Your task to perform on an android device: Go to Wikipedia Image 0: 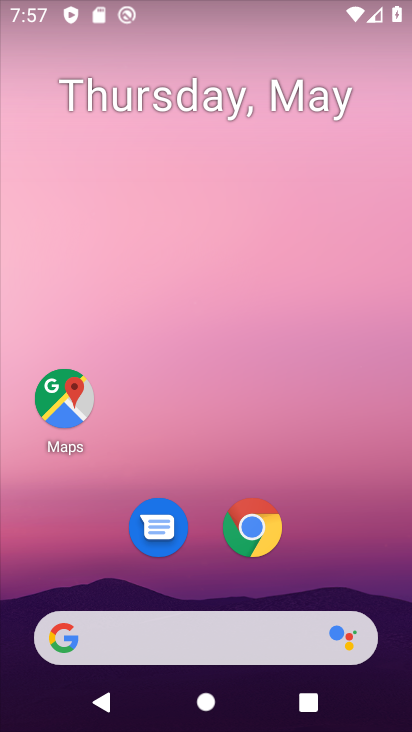
Step 0: drag from (168, 85) to (136, 0)
Your task to perform on an android device: Go to Wikipedia Image 1: 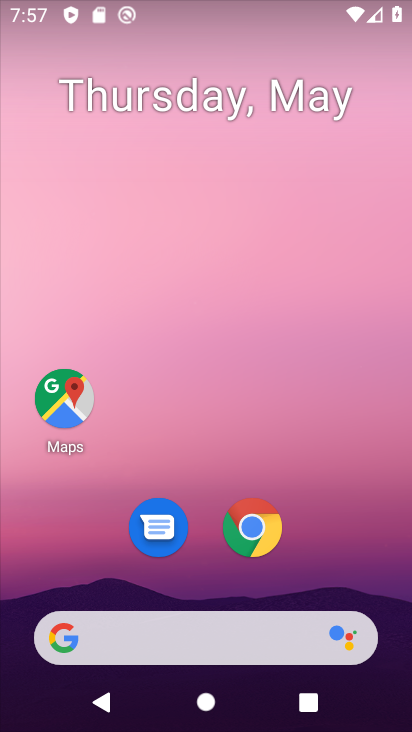
Step 1: drag from (319, 524) to (77, 22)
Your task to perform on an android device: Go to Wikipedia Image 2: 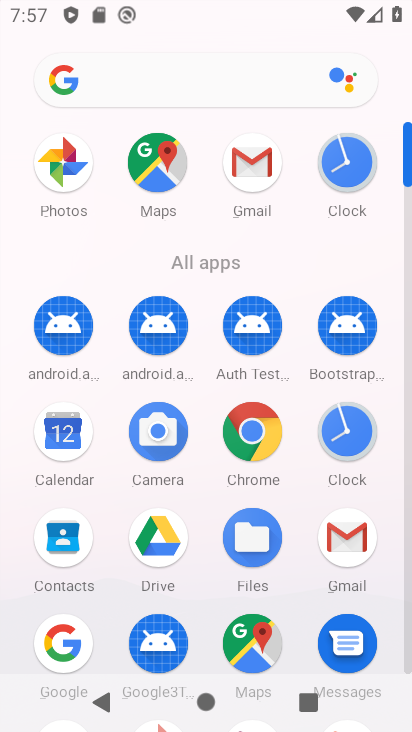
Step 2: drag from (195, 387) to (104, 16)
Your task to perform on an android device: Go to Wikipedia Image 3: 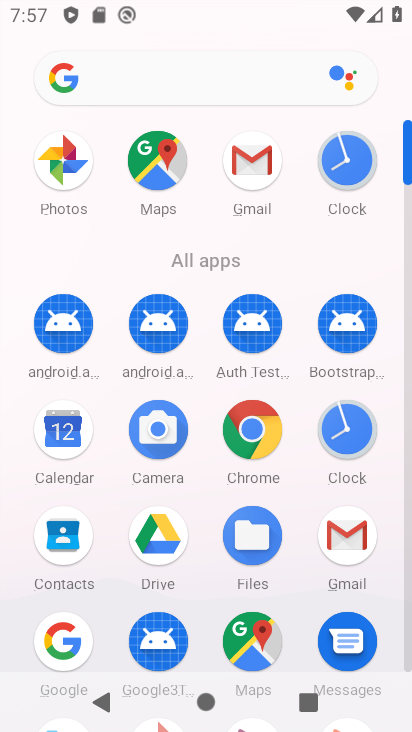
Step 3: drag from (206, 518) to (136, 99)
Your task to perform on an android device: Go to Wikipedia Image 4: 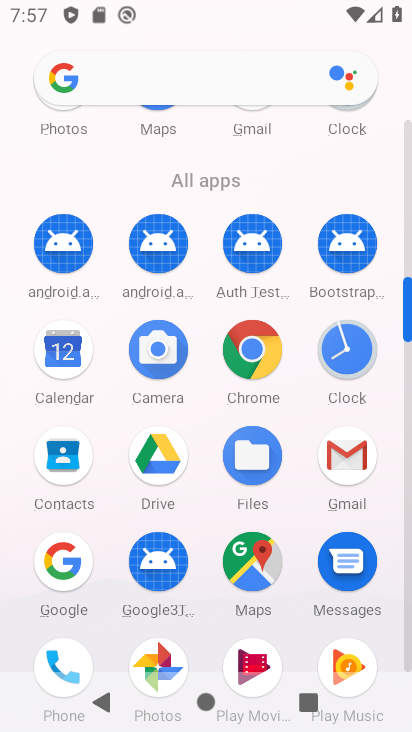
Step 4: click (177, 17)
Your task to perform on an android device: Go to Wikipedia Image 5: 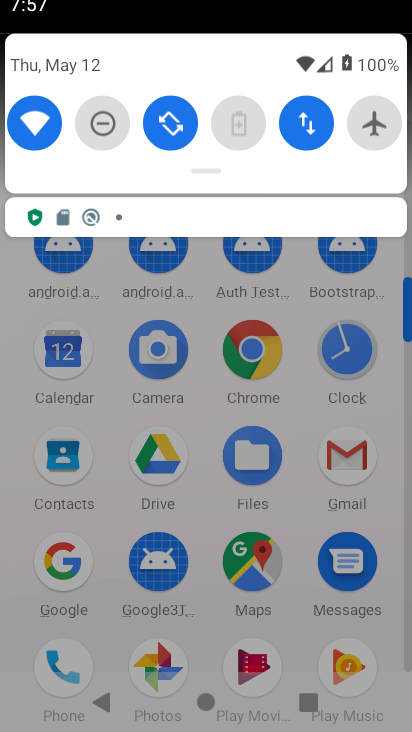
Step 5: click (256, 363)
Your task to perform on an android device: Go to Wikipedia Image 6: 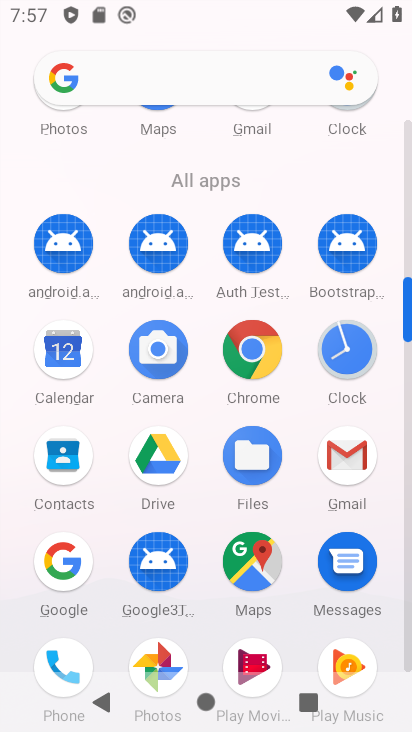
Step 6: click (256, 363)
Your task to perform on an android device: Go to Wikipedia Image 7: 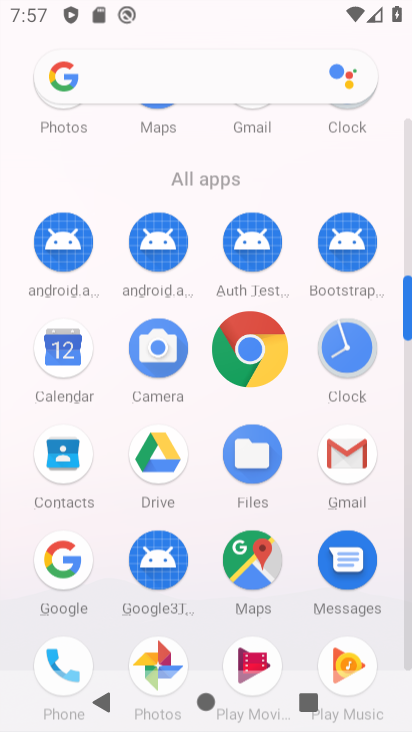
Step 7: click (249, 341)
Your task to perform on an android device: Go to Wikipedia Image 8: 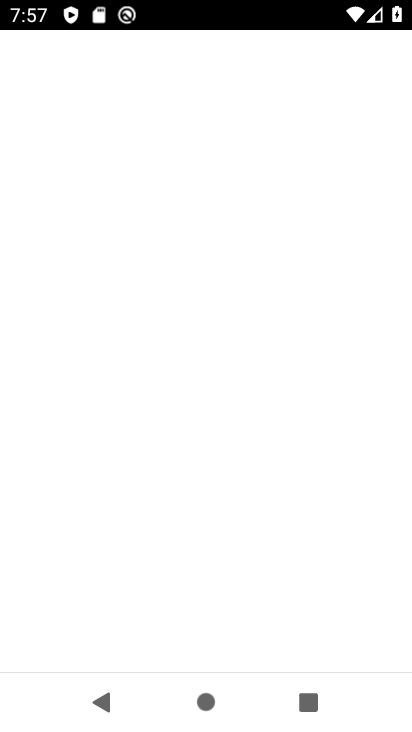
Step 8: click (254, 347)
Your task to perform on an android device: Go to Wikipedia Image 9: 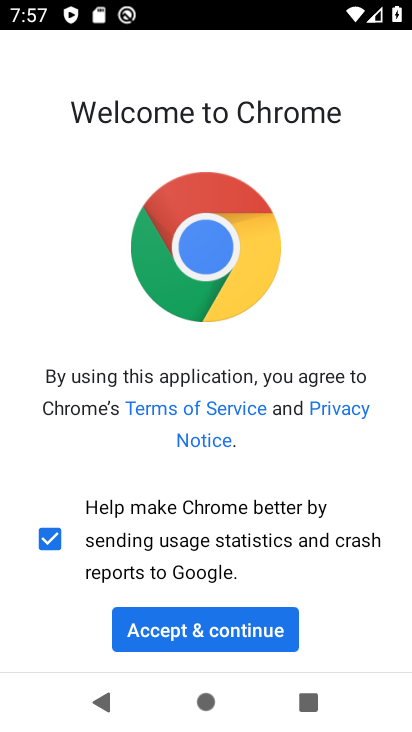
Step 9: click (223, 623)
Your task to perform on an android device: Go to Wikipedia Image 10: 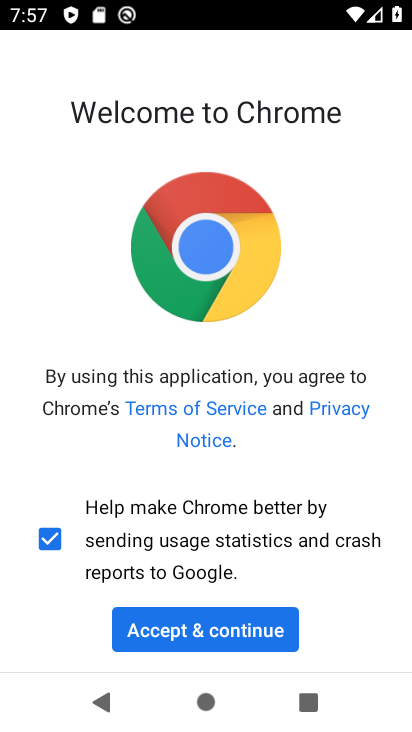
Step 10: click (224, 622)
Your task to perform on an android device: Go to Wikipedia Image 11: 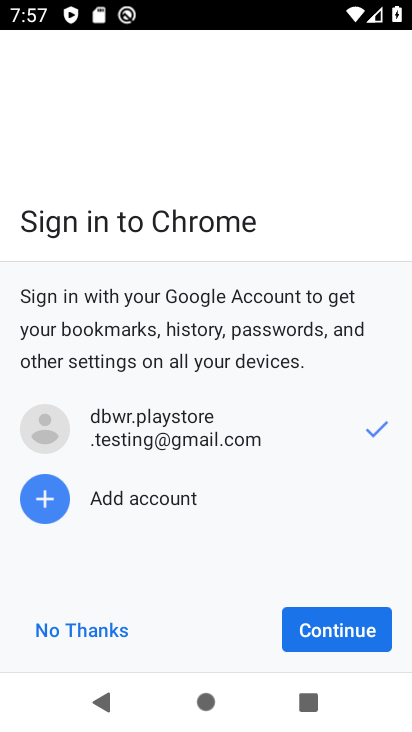
Step 11: click (224, 622)
Your task to perform on an android device: Go to Wikipedia Image 12: 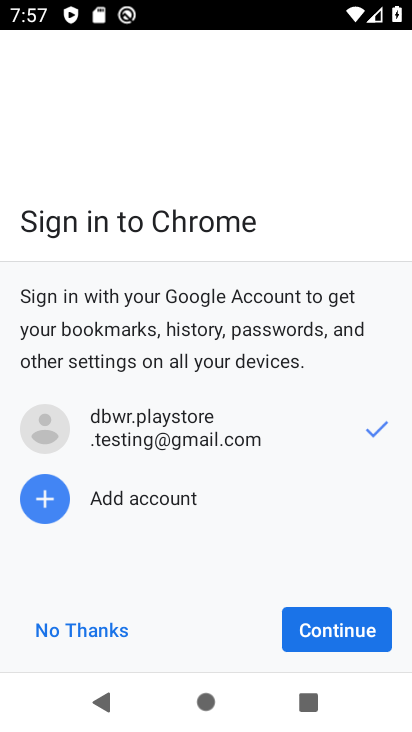
Step 12: click (224, 622)
Your task to perform on an android device: Go to Wikipedia Image 13: 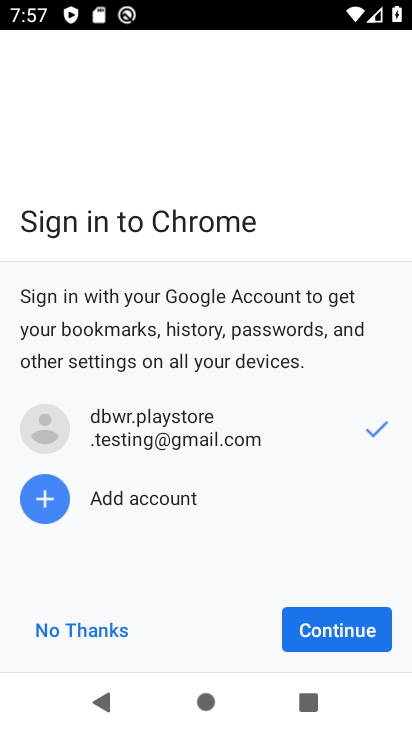
Step 13: click (336, 631)
Your task to perform on an android device: Go to Wikipedia Image 14: 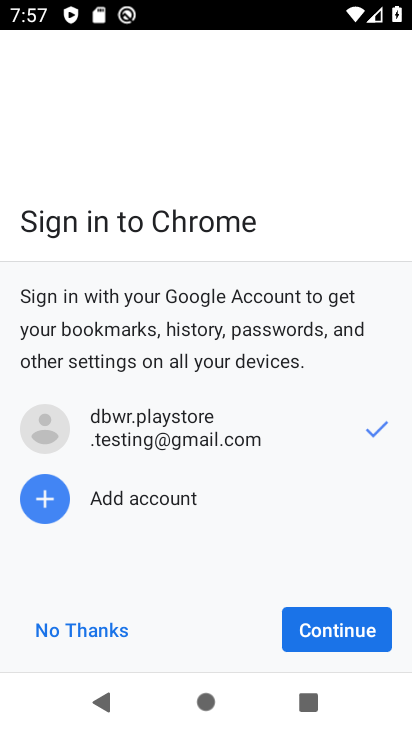
Step 14: click (336, 631)
Your task to perform on an android device: Go to Wikipedia Image 15: 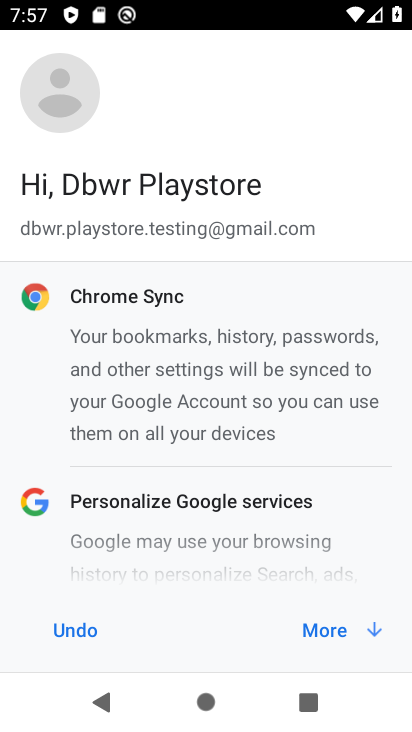
Step 15: click (336, 631)
Your task to perform on an android device: Go to Wikipedia Image 16: 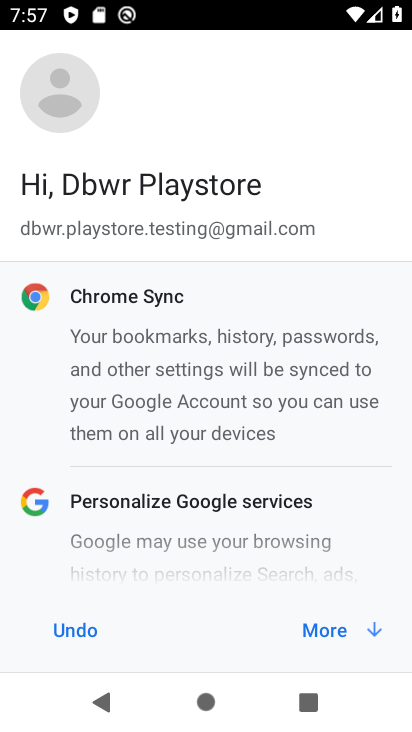
Step 16: click (336, 631)
Your task to perform on an android device: Go to Wikipedia Image 17: 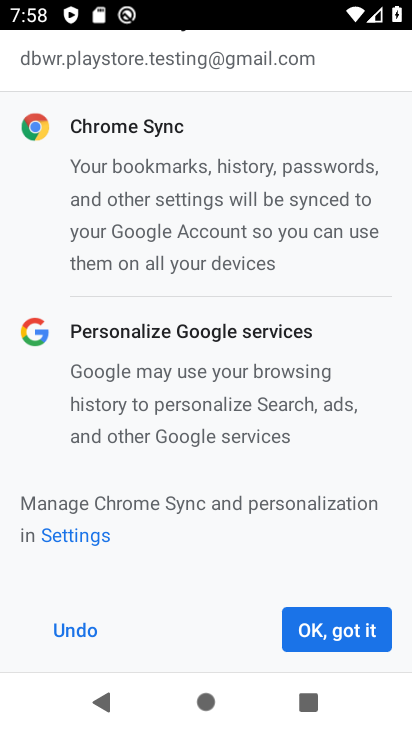
Step 17: click (336, 631)
Your task to perform on an android device: Go to Wikipedia Image 18: 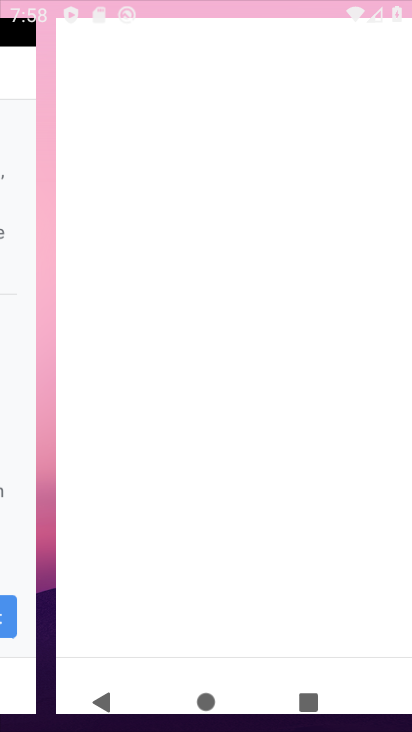
Step 18: click (339, 623)
Your task to perform on an android device: Go to Wikipedia Image 19: 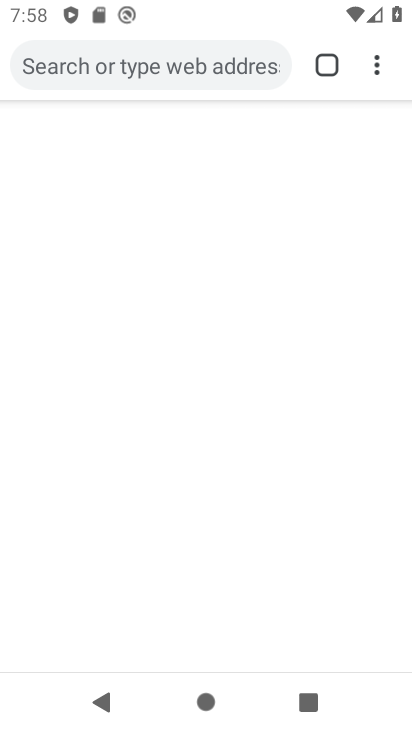
Step 19: click (342, 636)
Your task to perform on an android device: Go to Wikipedia Image 20: 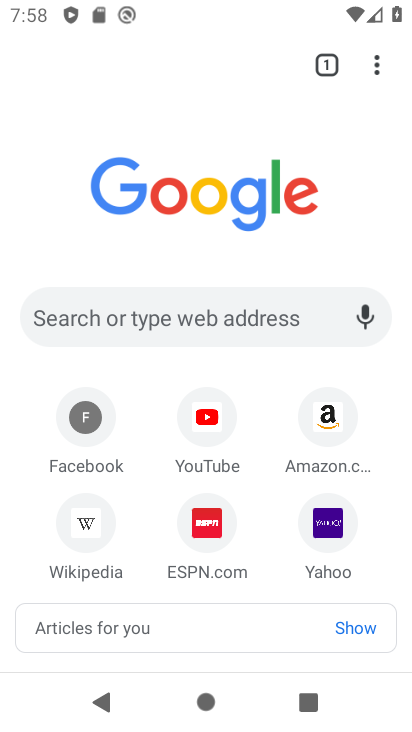
Step 20: click (92, 527)
Your task to perform on an android device: Go to Wikipedia Image 21: 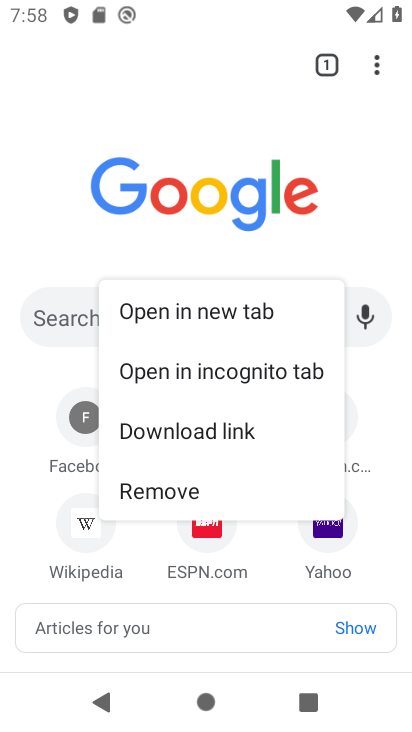
Step 21: click (86, 513)
Your task to perform on an android device: Go to Wikipedia Image 22: 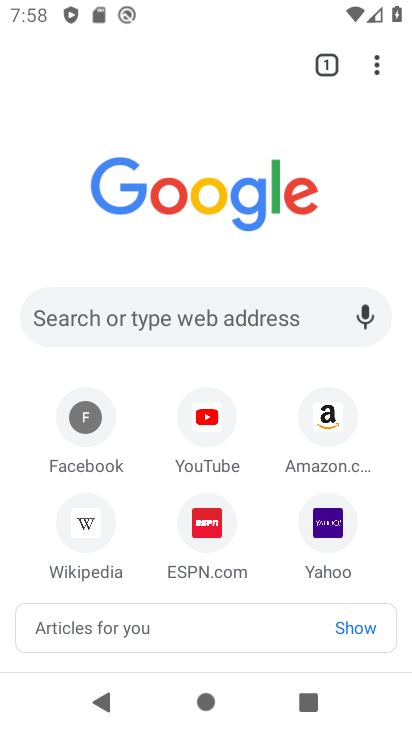
Step 22: click (82, 524)
Your task to perform on an android device: Go to Wikipedia Image 23: 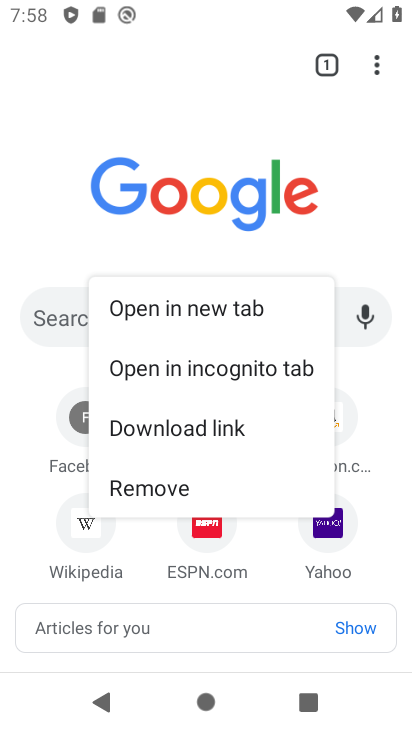
Step 23: click (82, 527)
Your task to perform on an android device: Go to Wikipedia Image 24: 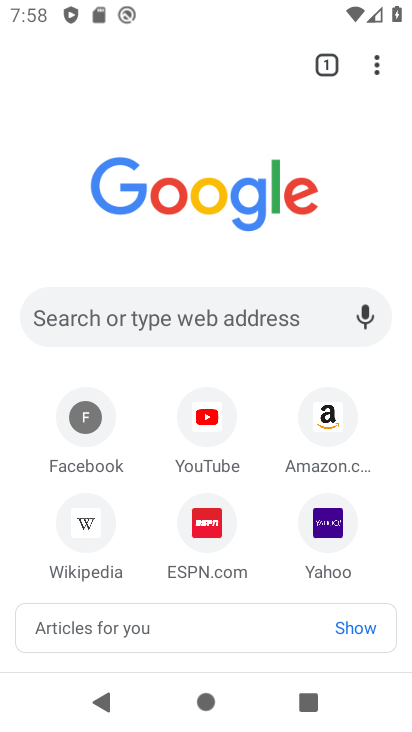
Step 24: click (188, 304)
Your task to perform on an android device: Go to Wikipedia Image 25: 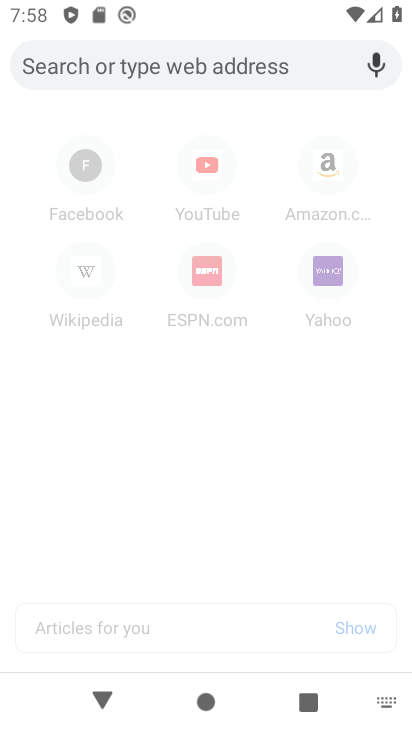
Step 25: click (185, 307)
Your task to perform on an android device: Go to Wikipedia Image 26: 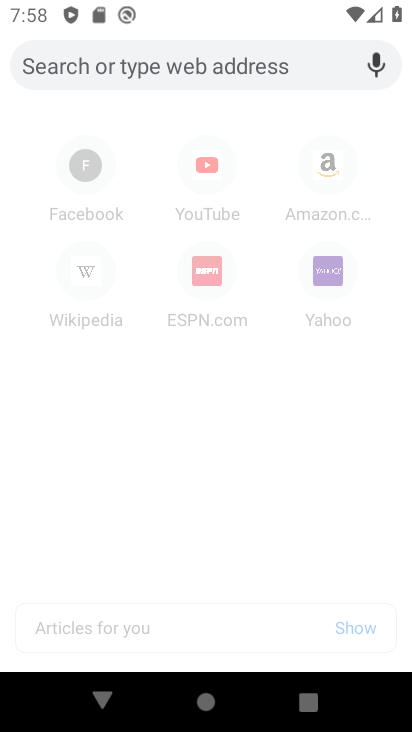
Step 26: click (198, 307)
Your task to perform on an android device: Go to Wikipedia Image 27: 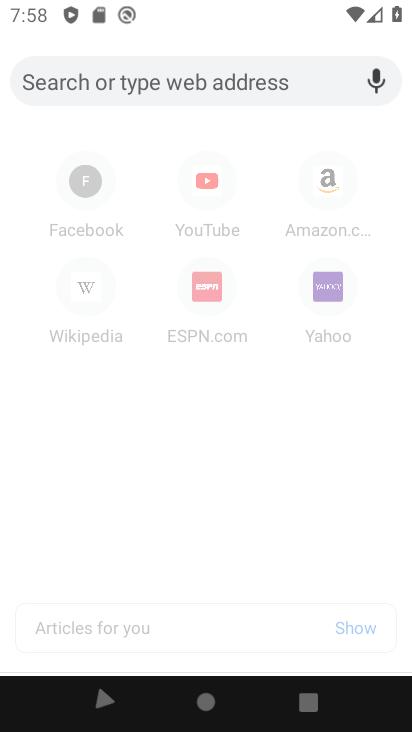
Step 27: task complete